Your task to perform on an android device: choose inbox layout in the gmail app Image 0: 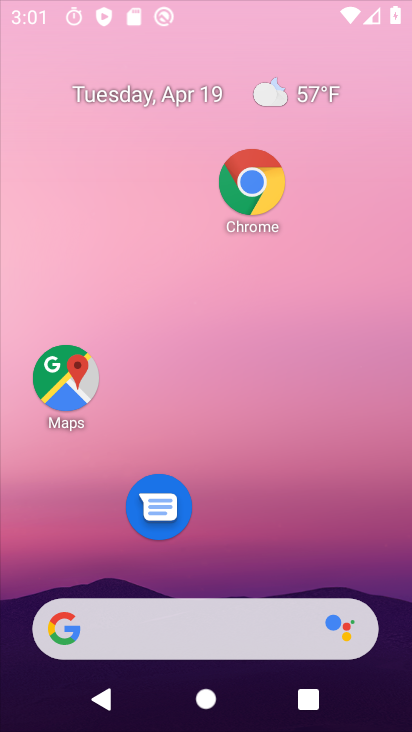
Step 0: drag from (244, 631) to (208, 18)
Your task to perform on an android device: choose inbox layout in the gmail app Image 1: 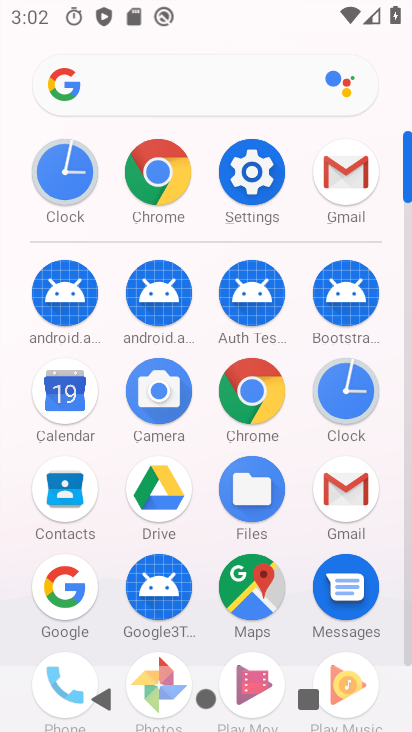
Step 1: click (351, 502)
Your task to perform on an android device: choose inbox layout in the gmail app Image 2: 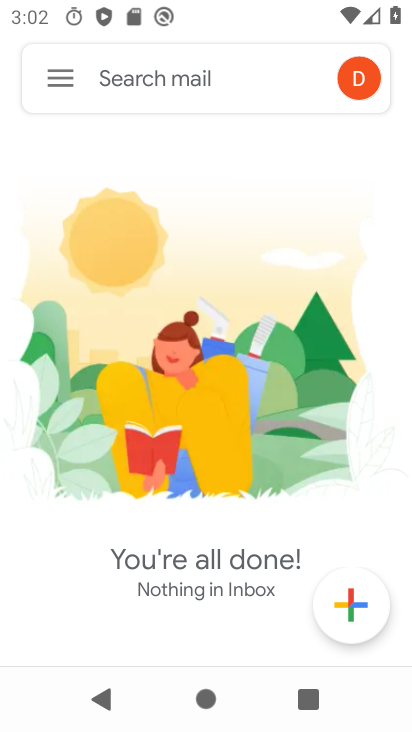
Step 2: click (64, 73)
Your task to perform on an android device: choose inbox layout in the gmail app Image 3: 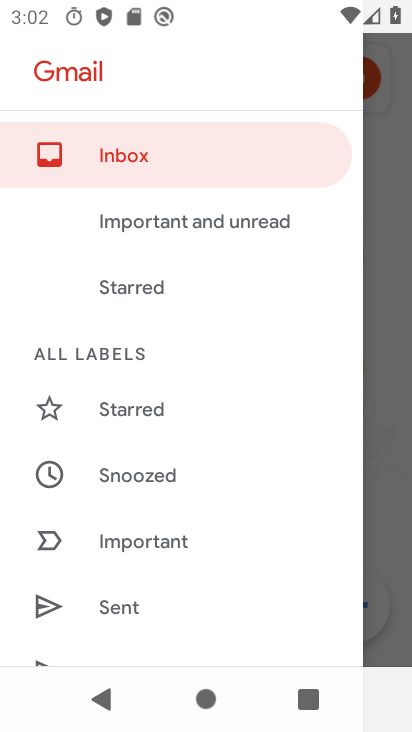
Step 3: drag from (174, 556) to (212, 84)
Your task to perform on an android device: choose inbox layout in the gmail app Image 4: 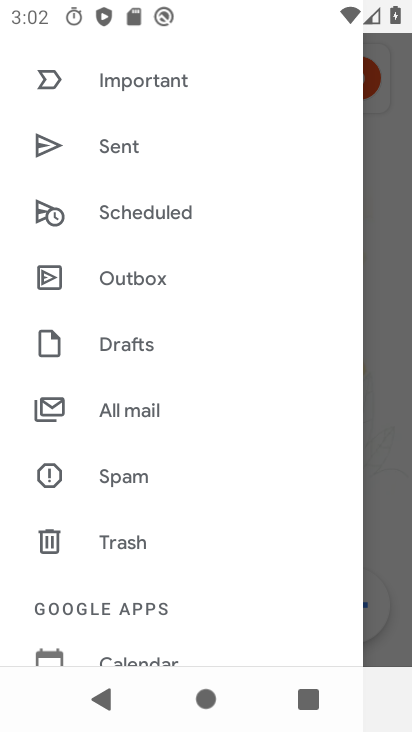
Step 4: drag from (183, 599) to (201, 259)
Your task to perform on an android device: choose inbox layout in the gmail app Image 5: 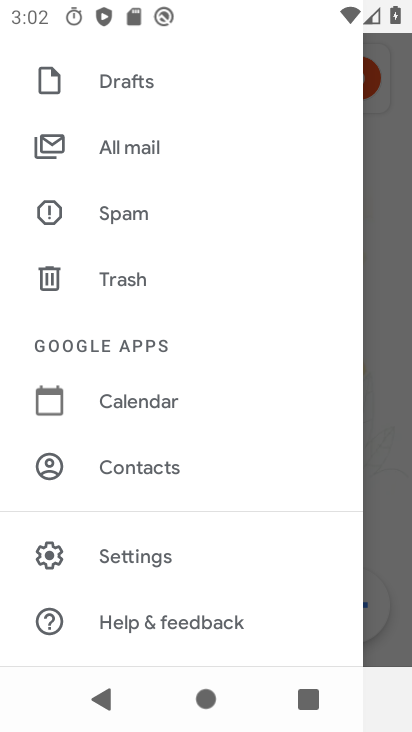
Step 5: click (181, 559)
Your task to perform on an android device: choose inbox layout in the gmail app Image 6: 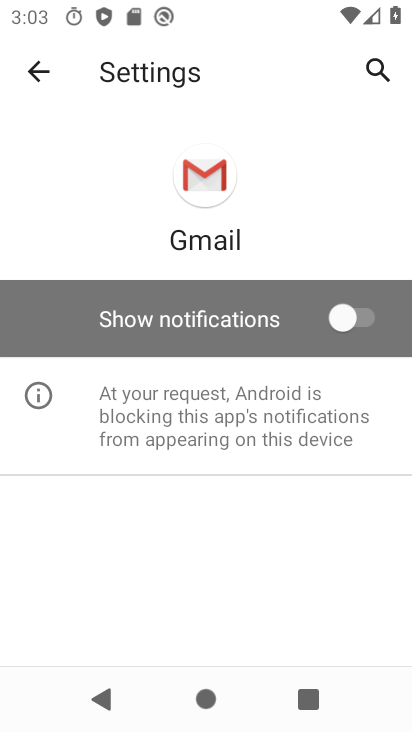
Step 6: task complete